Your task to perform on an android device: See recent photos Image 0: 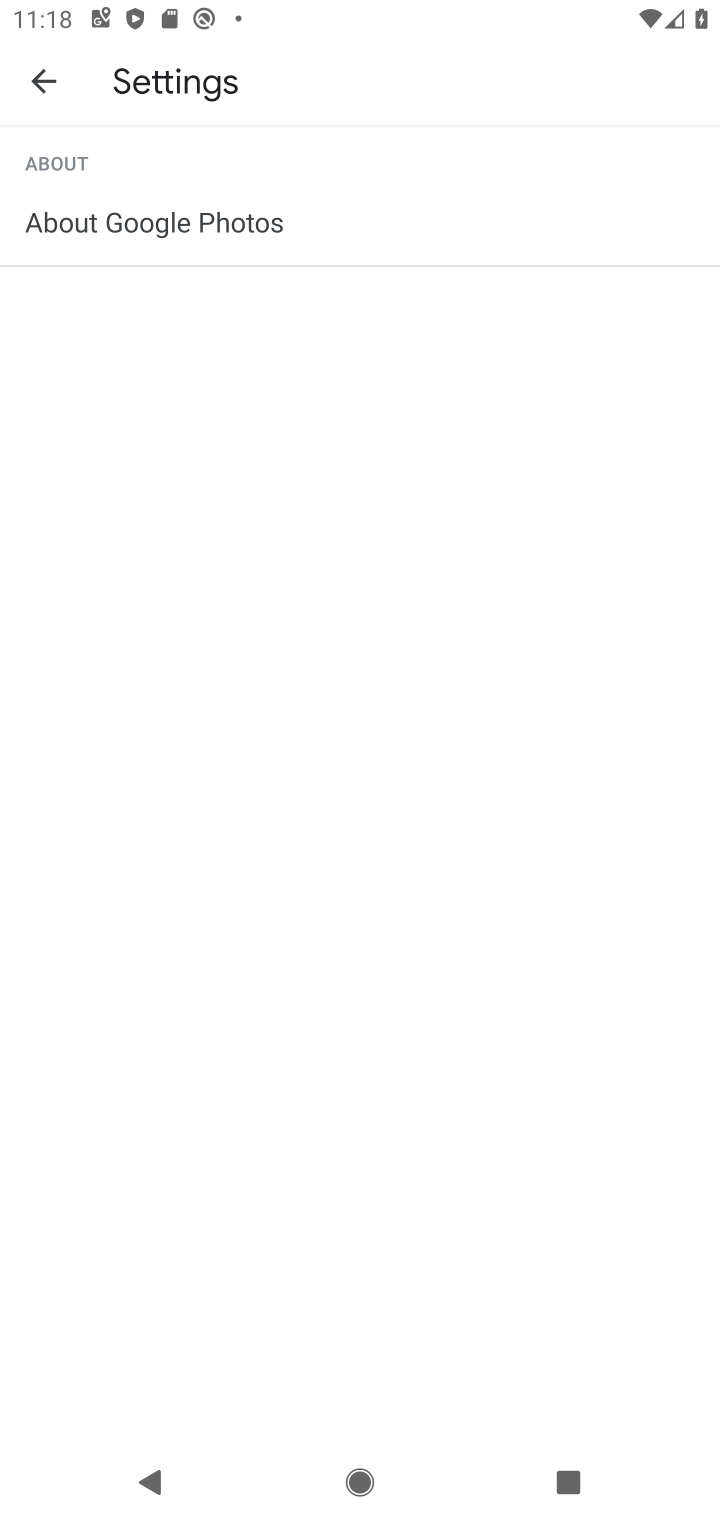
Step 0: press back button
Your task to perform on an android device: See recent photos Image 1: 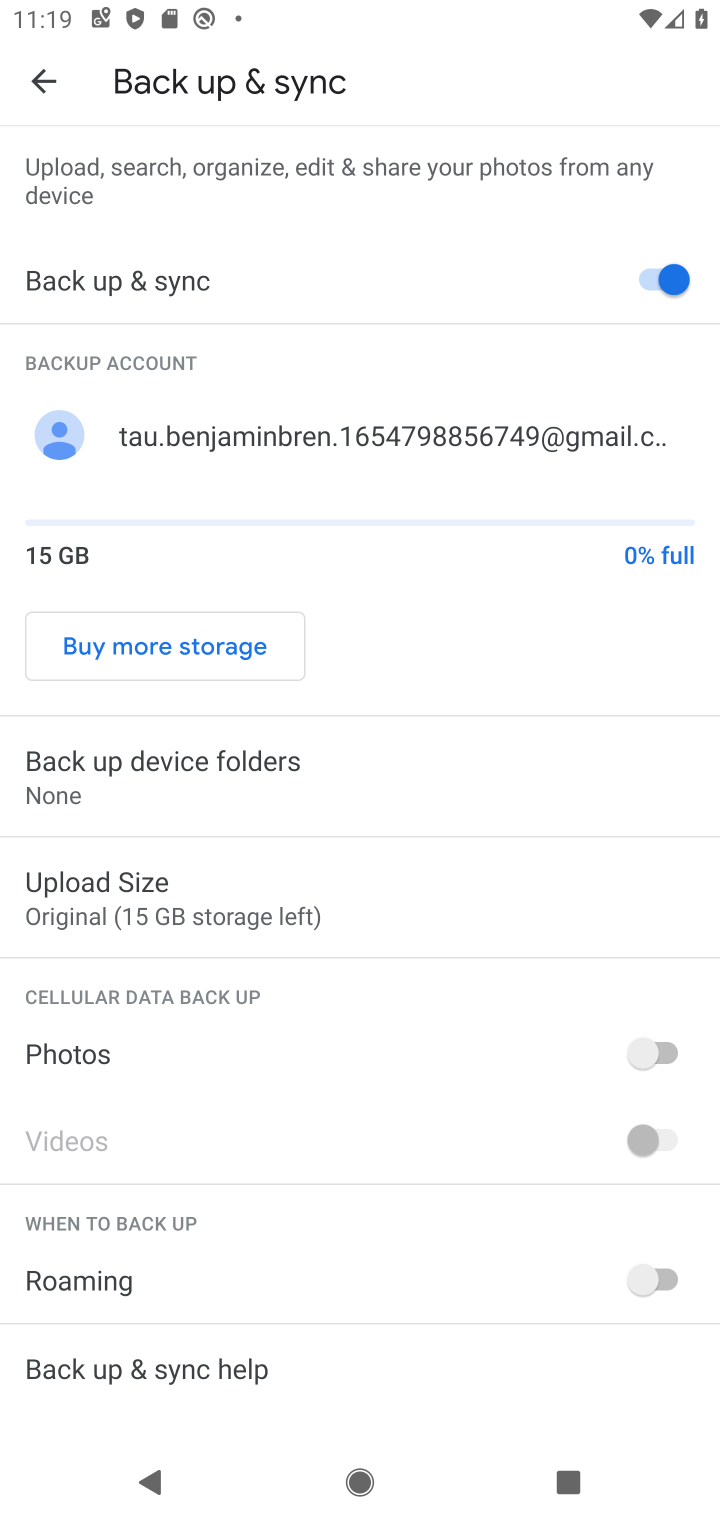
Step 1: click (42, 71)
Your task to perform on an android device: See recent photos Image 2: 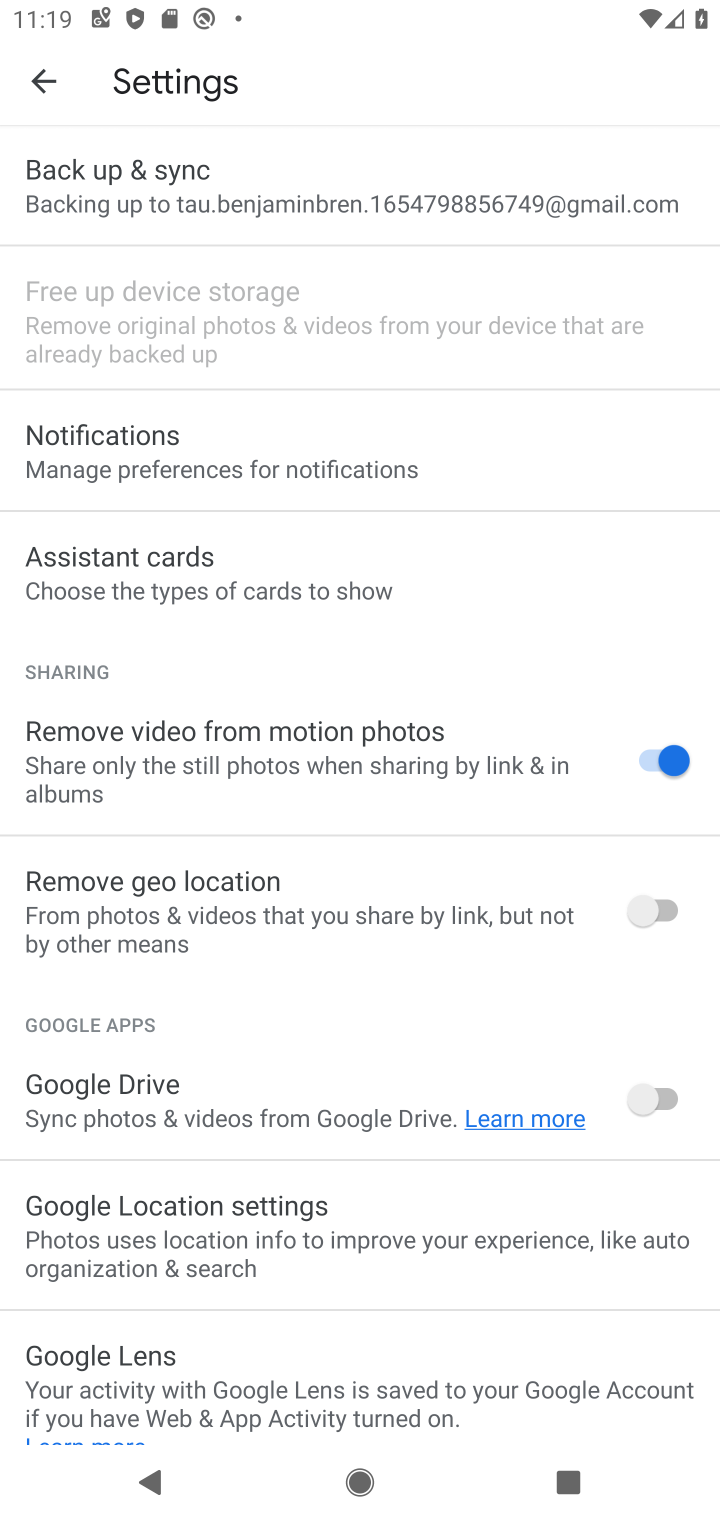
Step 2: click (46, 83)
Your task to perform on an android device: See recent photos Image 3: 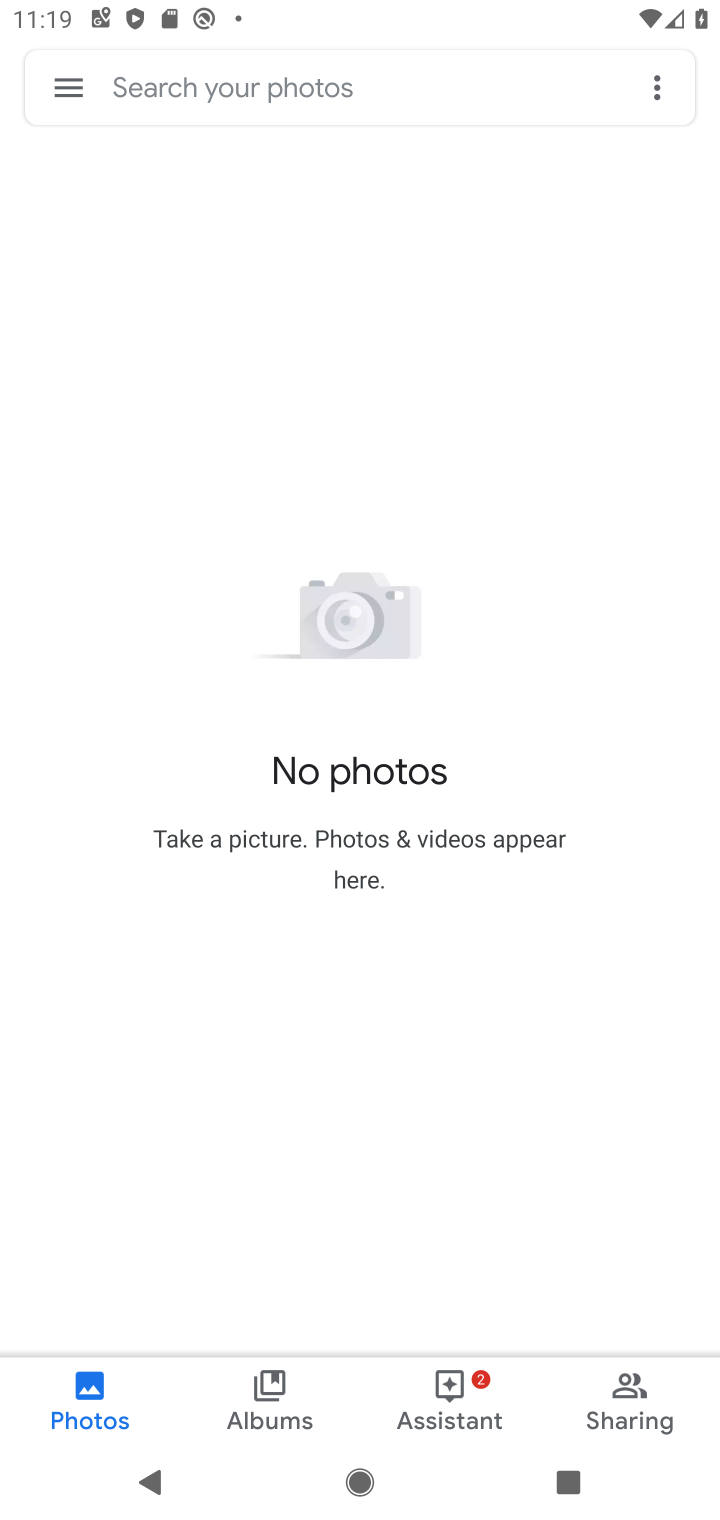
Step 3: task complete